Your task to perform on an android device: Go to display settings Image 0: 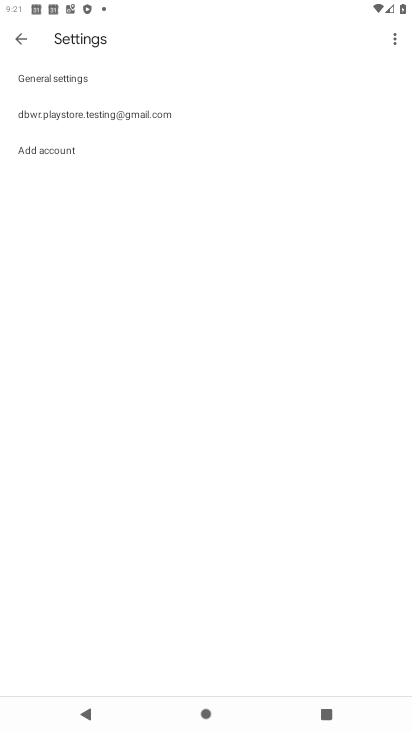
Step 0: press home button
Your task to perform on an android device: Go to display settings Image 1: 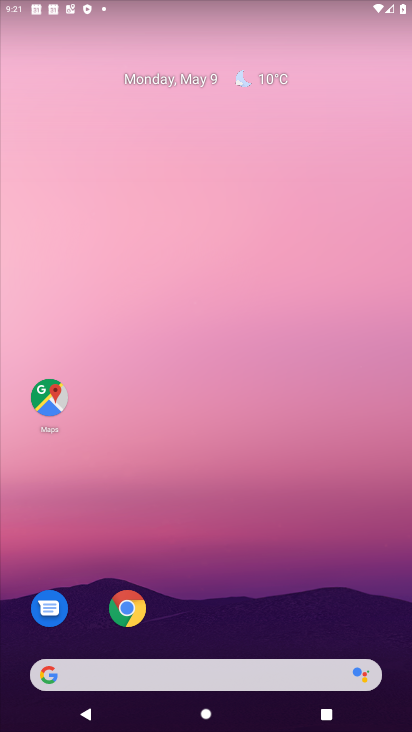
Step 1: drag from (332, 522) to (212, 7)
Your task to perform on an android device: Go to display settings Image 2: 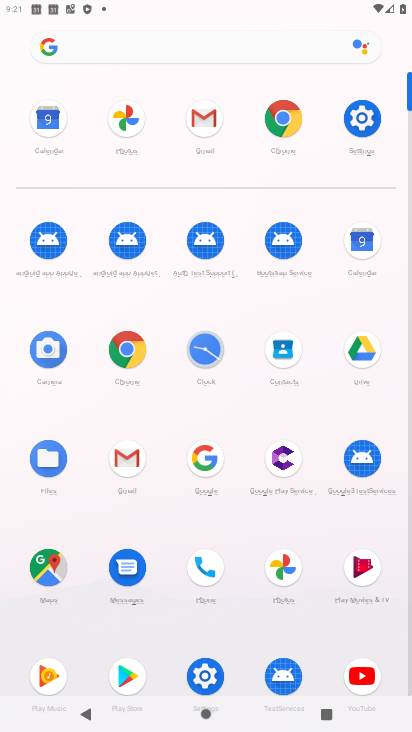
Step 2: click (359, 121)
Your task to perform on an android device: Go to display settings Image 3: 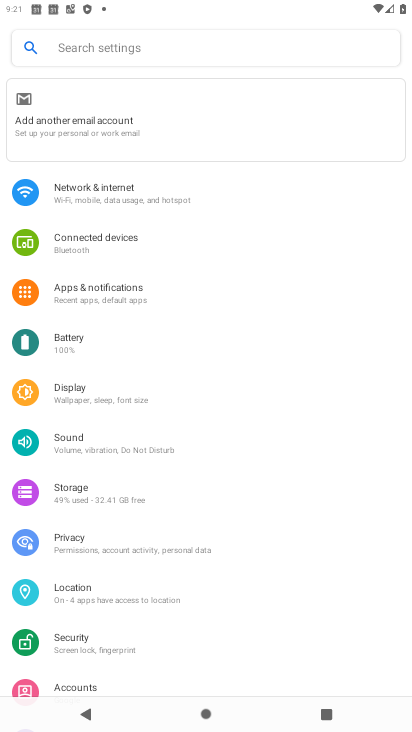
Step 3: click (75, 399)
Your task to perform on an android device: Go to display settings Image 4: 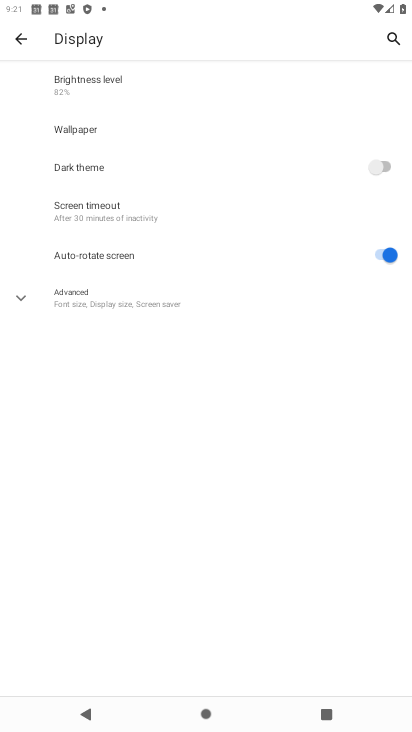
Step 4: click (103, 210)
Your task to perform on an android device: Go to display settings Image 5: 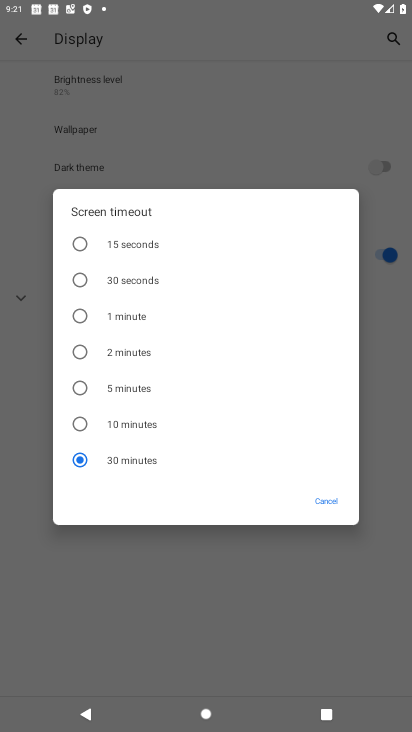
Step 5: task complete